Your task to perform on an android device: check data usage Image 0: 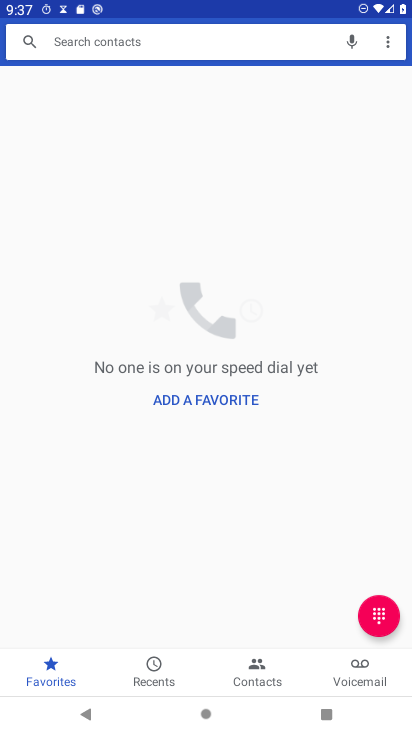
Step 0: drag from (270, 625) to (270, 110)
Your task to perform on an android device: check data usage Image 1: 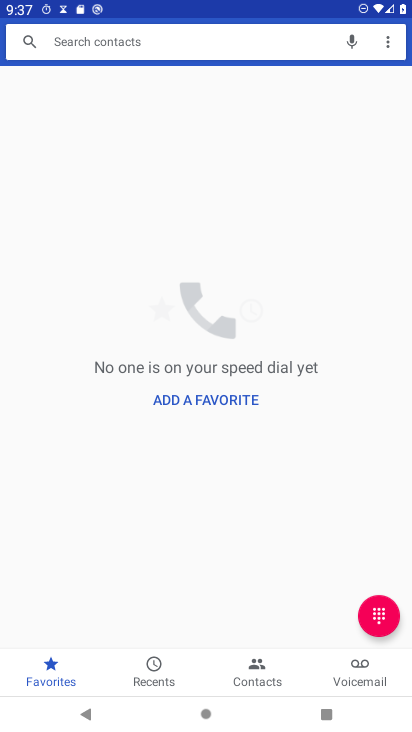
Step 1: press back button
Your task to perform on an android device: check data usage Image 2: 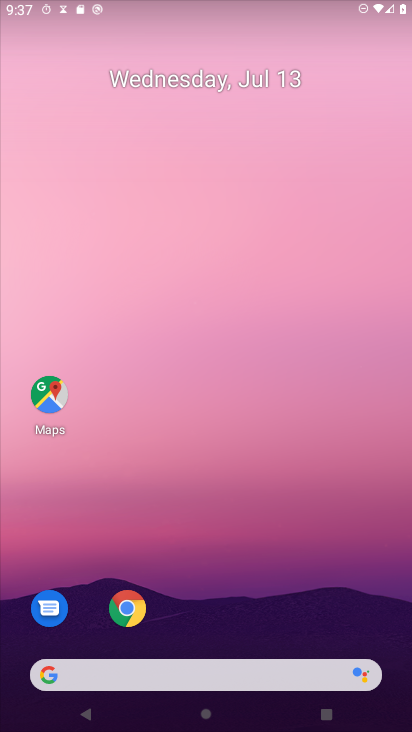
Step 2: drag from (247, 655) to (241, 203)
Your task to perform on an android device: check data usage Image 3: 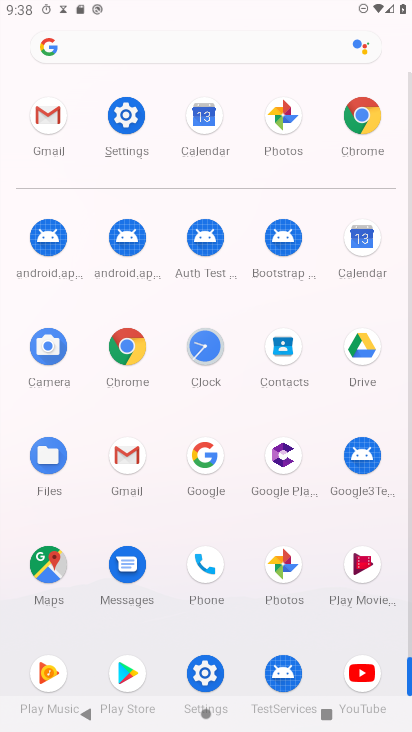
Step 3: click (111, 99)
Your task to perform on an android device: check data usage Image 4: 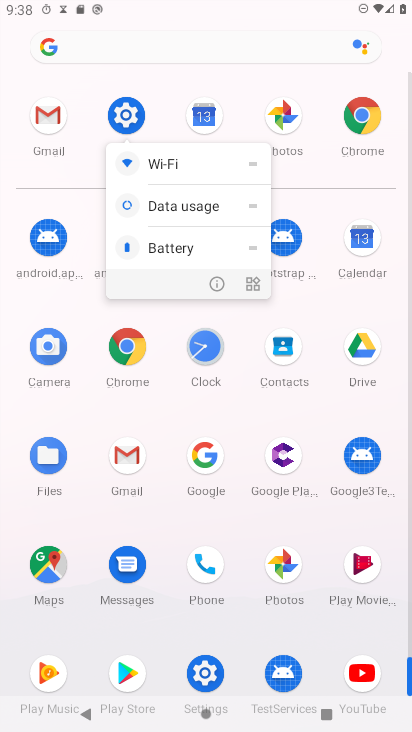
Step 4: click (127, 94)
Your task to perform on an android device: check data usage Image 5: 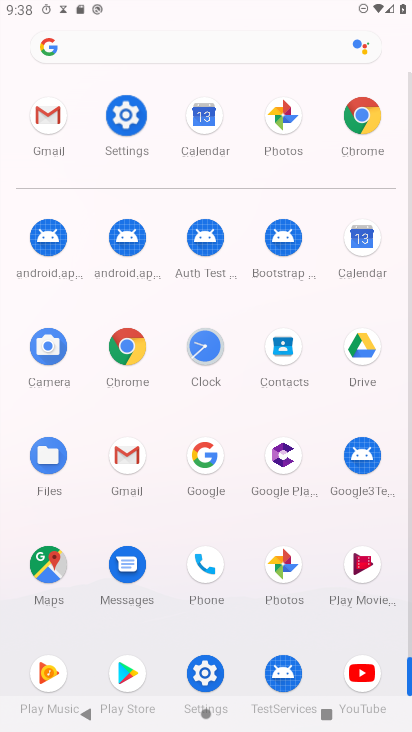
Step 5: click (127, 94)
Your task to perform on an android device: check data usage Image 6: 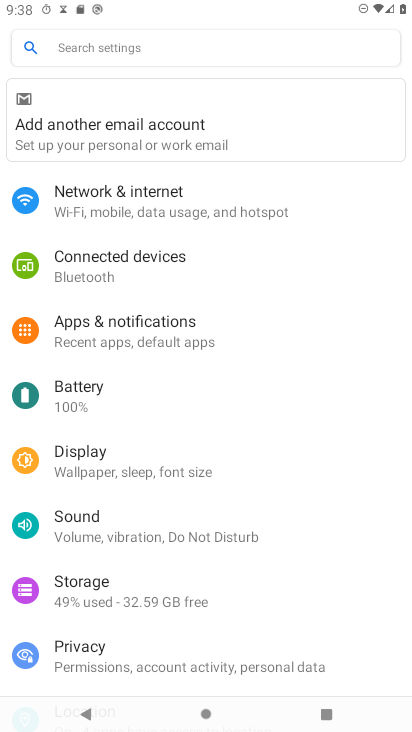
Step 6: drag from (144, 635) to (194, 188)
Your task to perform on an android device: check data usage Image 7: 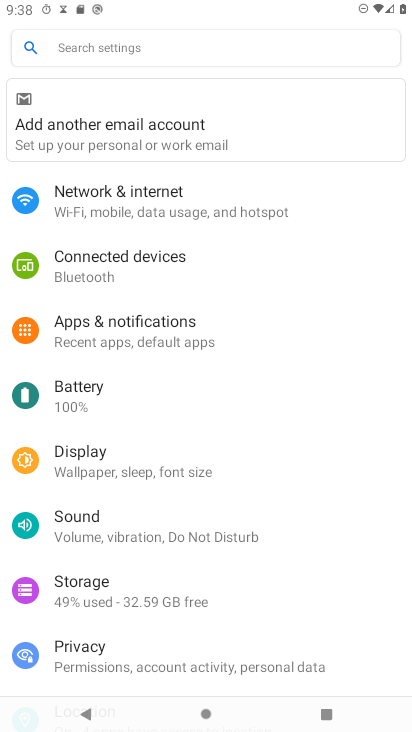
Step 7: drag from (115, 544) to (163, 273)
Your task to perform on an android device: check data usage Image 8: 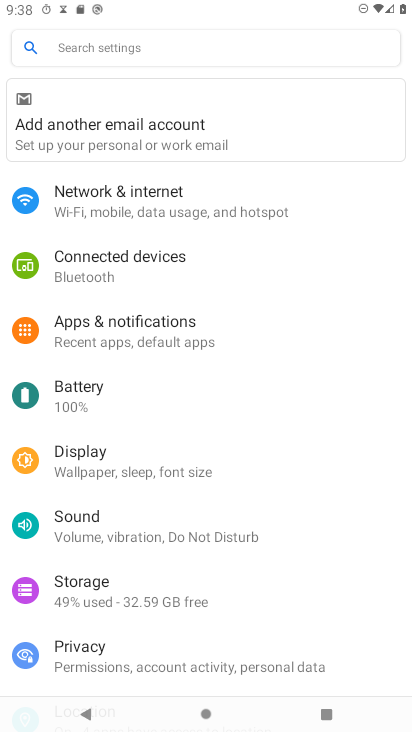
Step 8: drag from (148, 693) to (166, 320)
Your task to perform on an android device: check data usage Image 9: 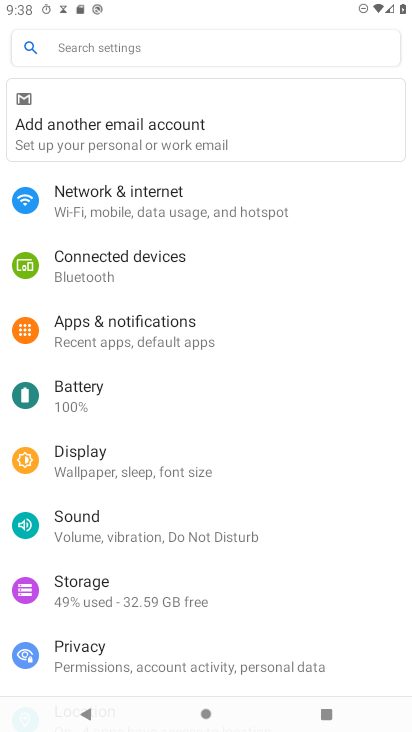
Step 9: click (106, 587)
Your task to perform on an android device: check data usage Image 10: 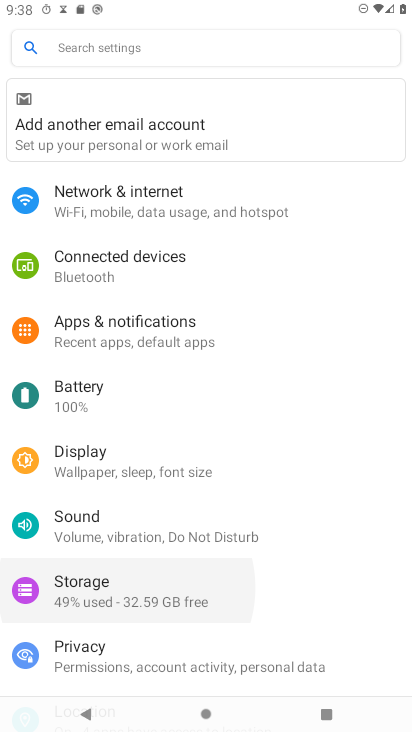
Step 10: click (107, 589)
Your task to perform on an android device: check data usage Image 11: 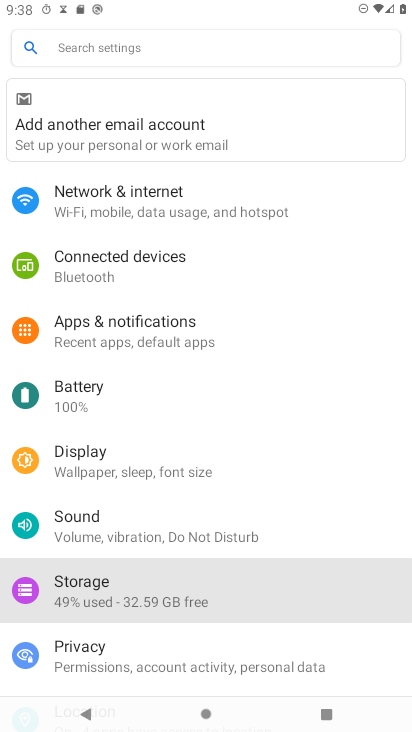
Step 11: click (108, 589)
Your task to perform on an android device: check data usage Image 12: 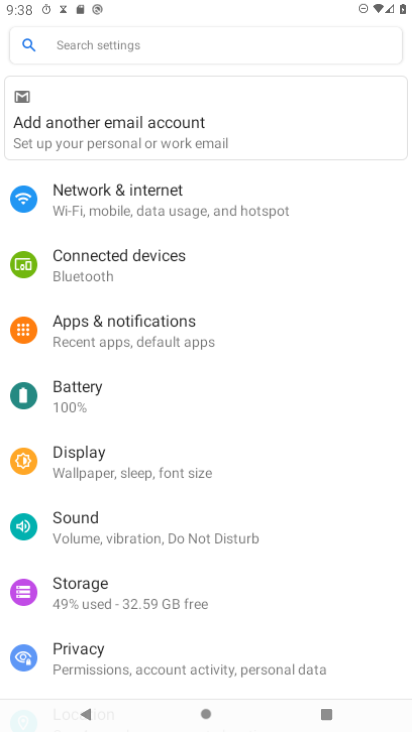
Step 12: click (109, 590)
Your task to perform on an android device: check data usage Image 13: 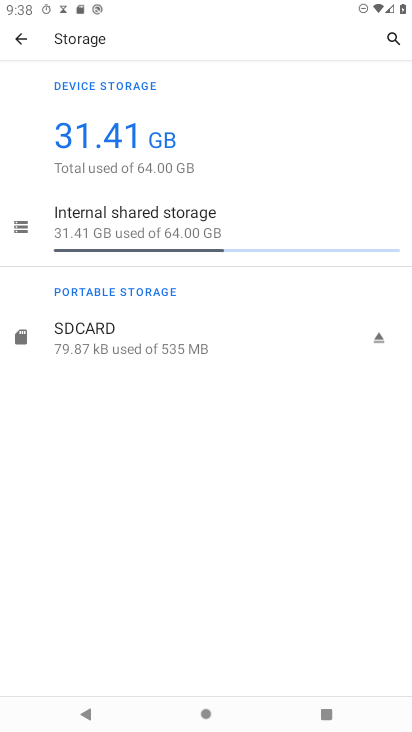
Step 13: click (108, 589)
Your task to perform on an android device: check data usage Image 14: 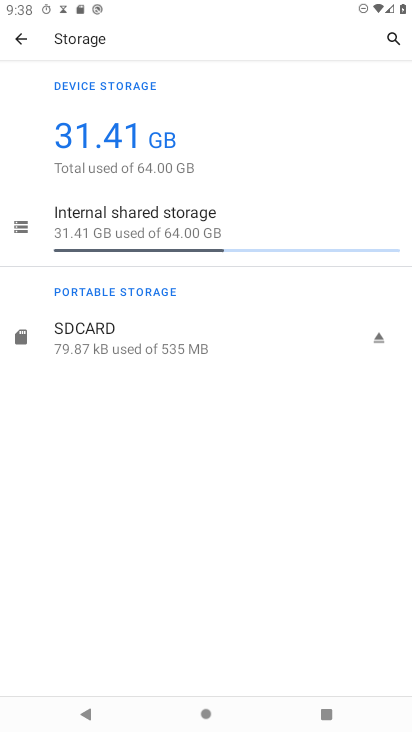
Step 14: task complete